Your task to perform on an android device: Open Youtube and go to the subscriptions tab Image 0: 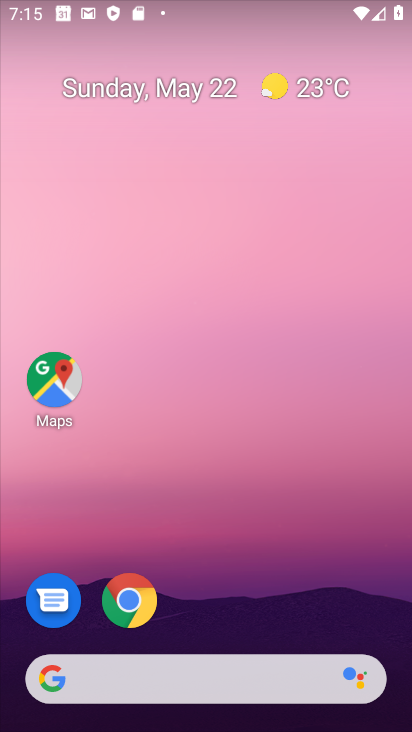
Step 0: drag from (338, 638) to (257, 54)
Your task to perform on an android device: Open Youtube and go to the subscriptions tab Image 1: 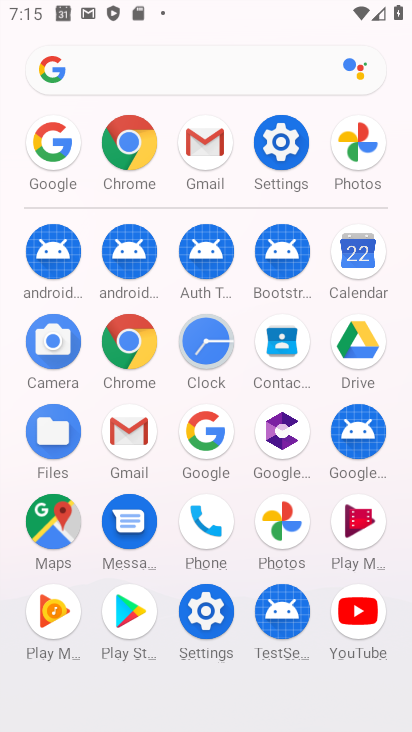
Step 1: click (342, 618)
Your task to perform on an android device: Open Youtube and go to the subscriptions tab Image 2: 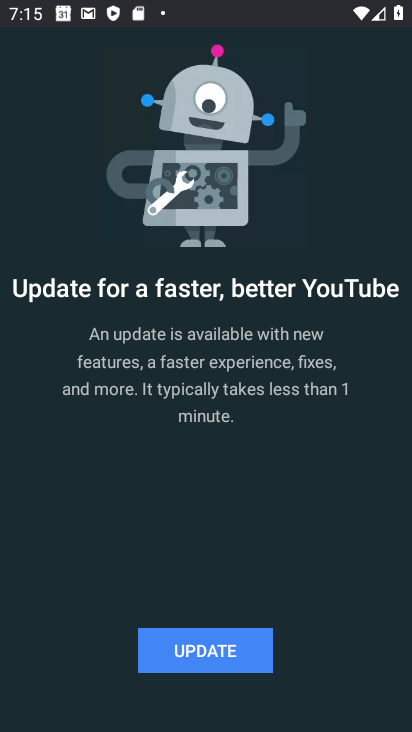
Step 2: click (218, 652)
Your task to perform on an android device: Open Youtube and go to the subscriptions tab Image 3: 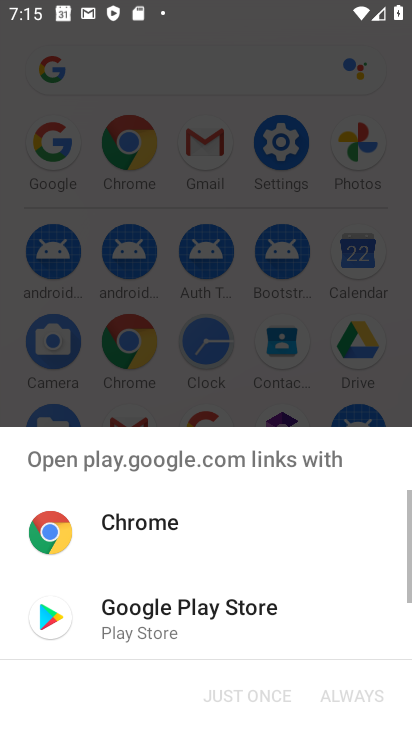
Step 3: drag from (40, 637) to (75, 637)
Your task to perform on an android device: Open Youtube and go to the subscriptions tab Image 4: 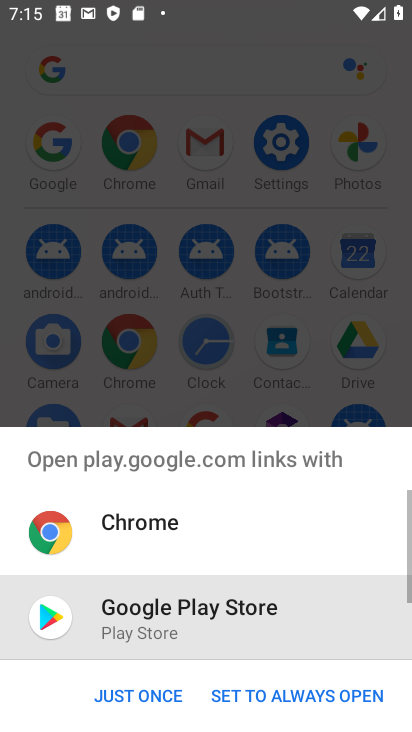
Step 4: click (134, 704)
Your task to perform on an android device: Open Youtube and go to the subscriptions tab Image 5: 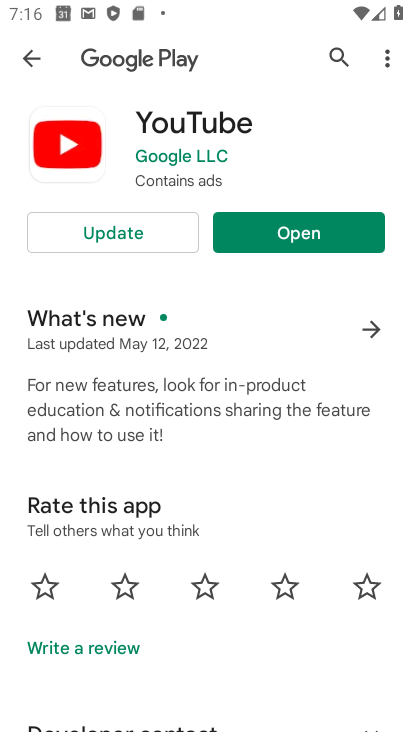
Step 5: click (299, 241)
Your task to perform on an android device: Open Youtube and go to the subscriptions tab Image 6: 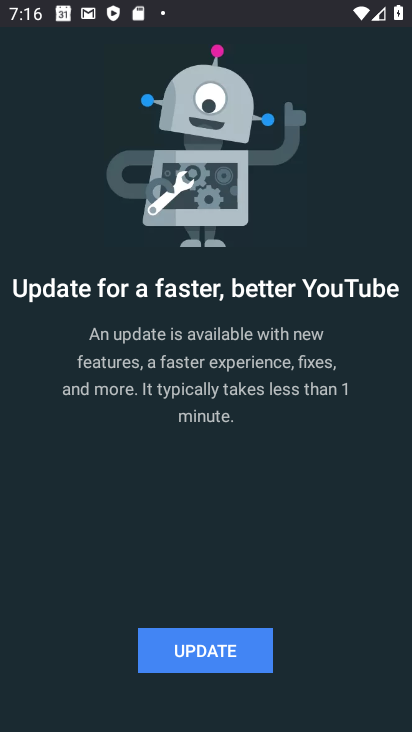
Step 6: click (239, 667)
Your task to perform on an android device: Open Youtube and go to the subscriptions tab Image 7: 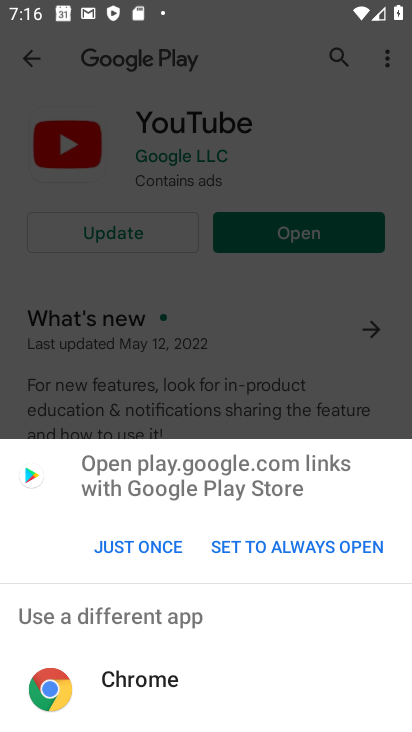
Step 7: click (124, 549)
Your task to perform on an android device: Open Youtube and go to the subscriptions tab Image 8: 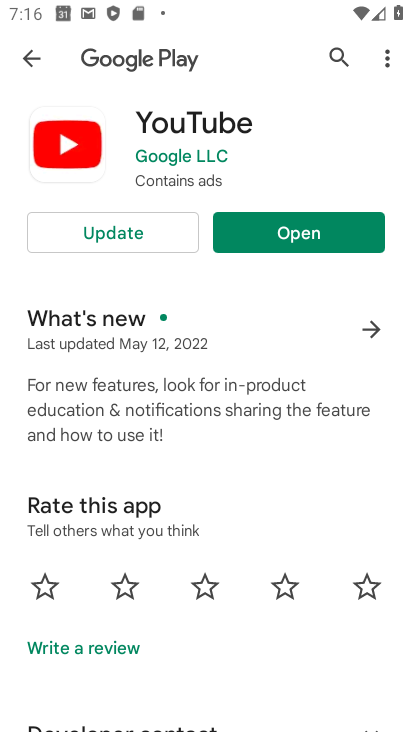
Step 8: click (122, 232)
Your task to perform on an android device: Open Youtube and go to the subscriptions tab Image 9: 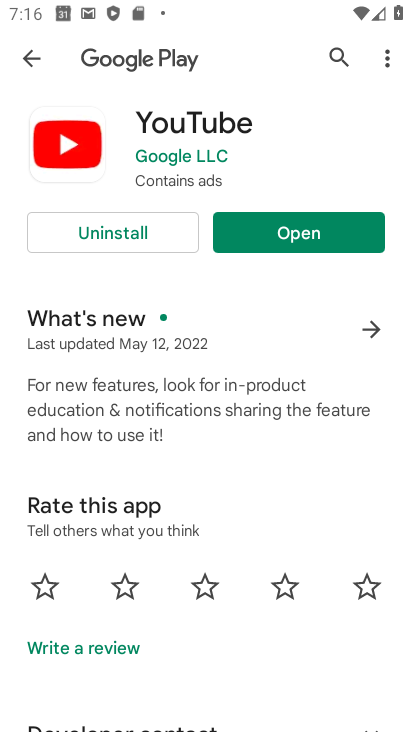
Step 9: click (256, 215)
Your task to perform on an android device: Open Youtube and go to the subscriptions tab Image 10: 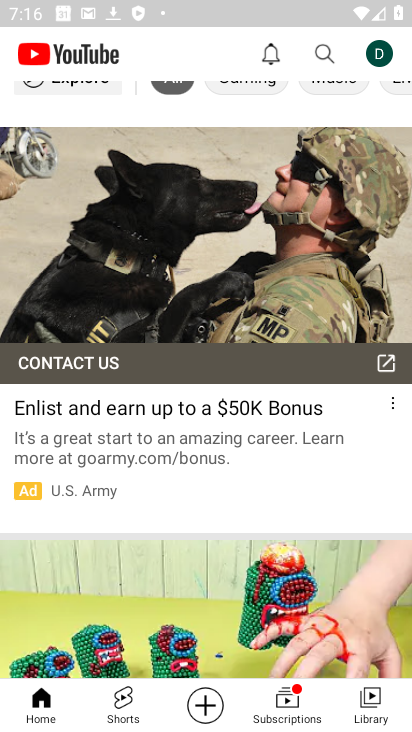
Step 10: click (289, 700)
Your task to perform on an android device: Open Youtube and go to the subscriptions tab Image 11: 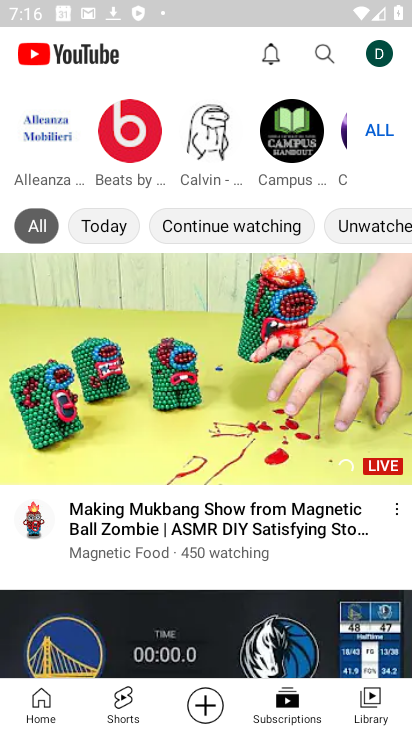
Step 11: task complete